Your task to perform on an android device: Open eBay Image 0: 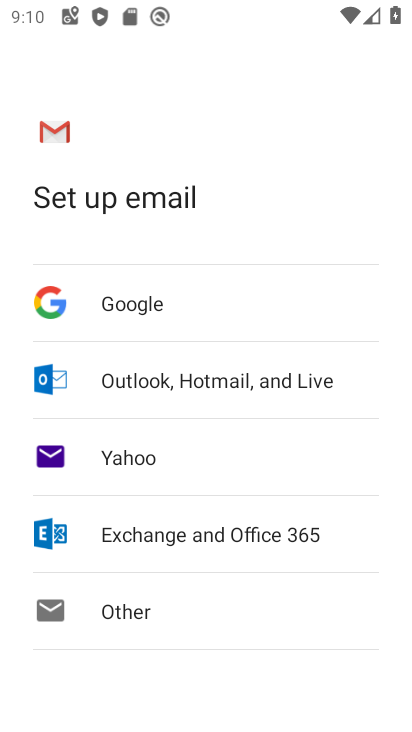
Step 0: press home button
Your task to perform on an android device: Open eBay Image 1: 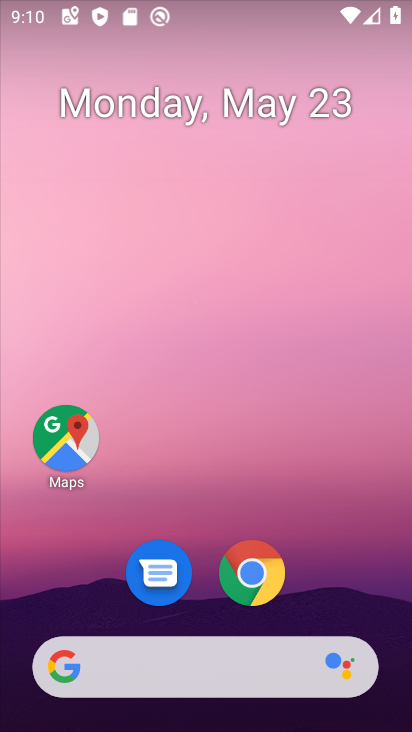
Step 1: drag from (380, 593) to (373, 230)
Your task to perform on an android device: Open eBay Image 2: 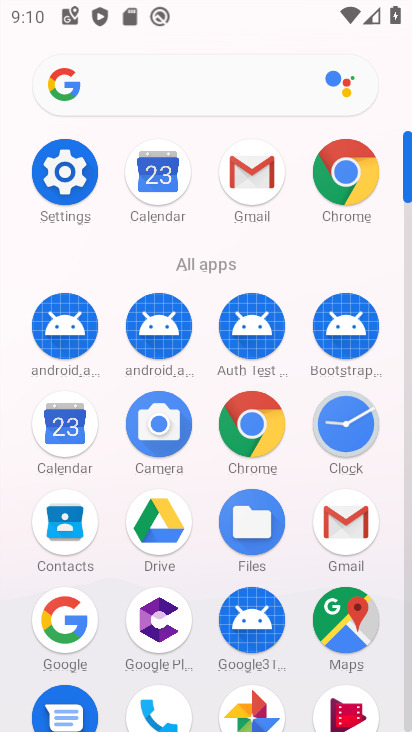
Step 2: click (259, 437)
Your task to perform on an android device: Open eBay Image 3: 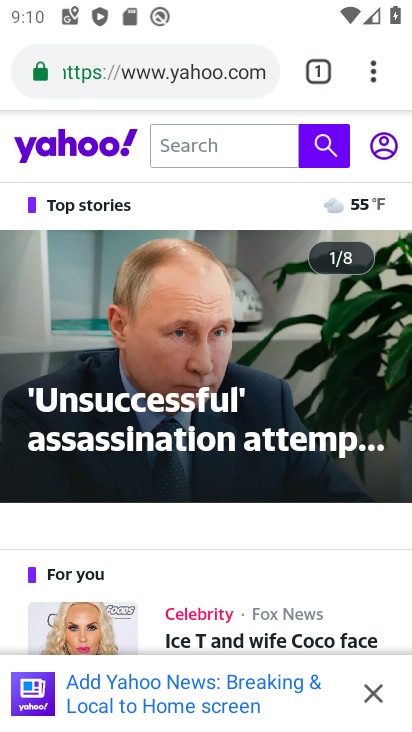
Step 3: press back button
Your task to perform on an android device: Open eBay Image 4: 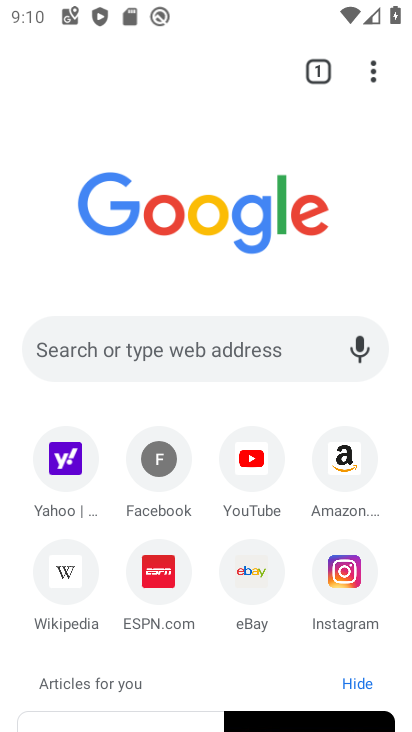
Step 4: click (240, 582)
Your task to perform on an android device: Open eBay Image 5: 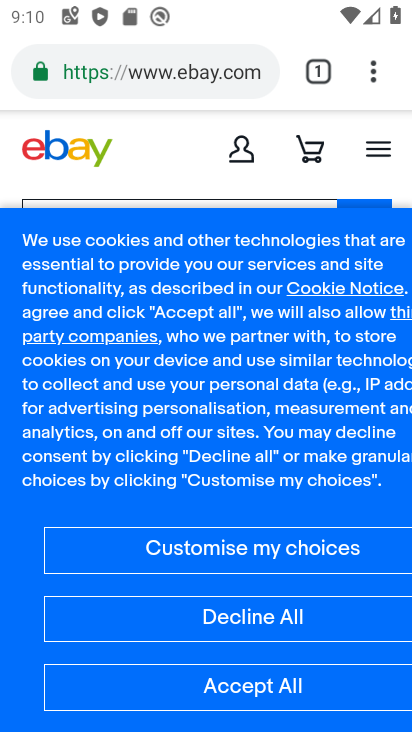
Step 5: task complete